Your task to perform on an android device: Open accessibility settings Image 0: 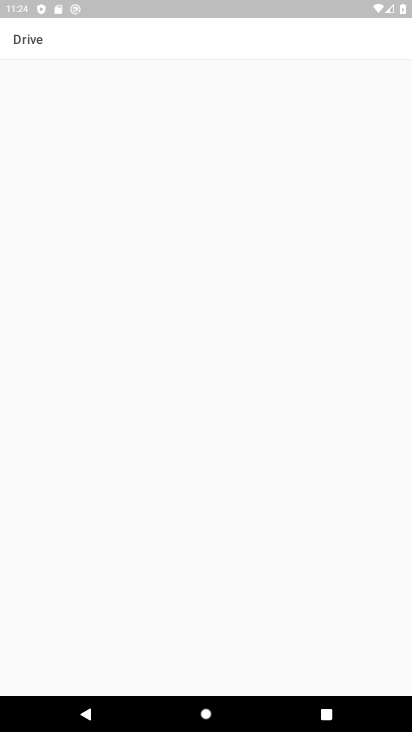
Step 0: press home button
Your task to perform on an android device: Open accessibility settings Image 1: 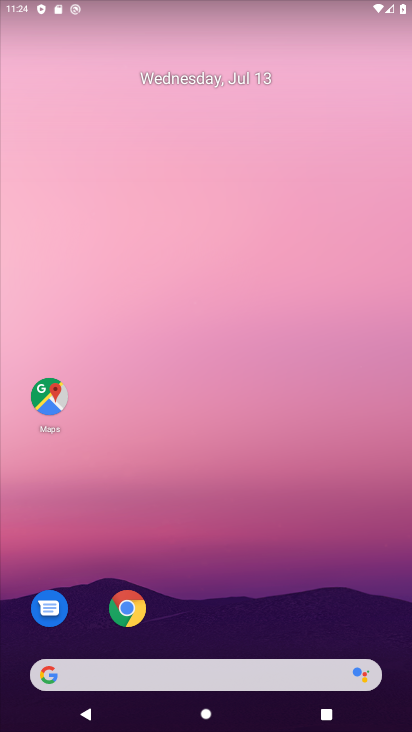
Step 1: drag from (35, 516) to (225, 108)
Your task to perform on an android device: Open accessibility settings Image 2: 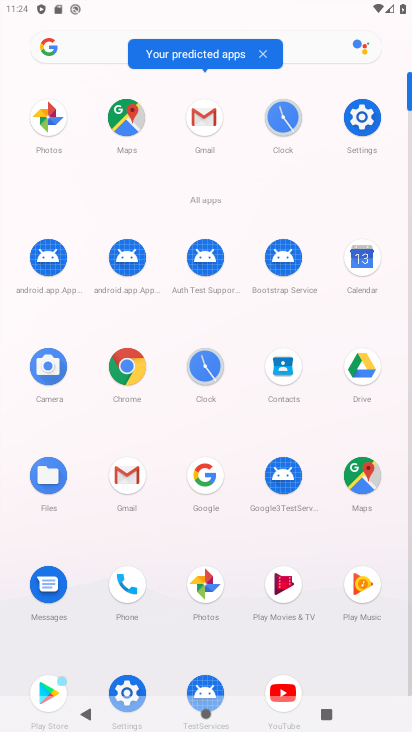
Step 2: click (357, 122)
Your task to perform on an android device: Open accessibility settings Image 3: 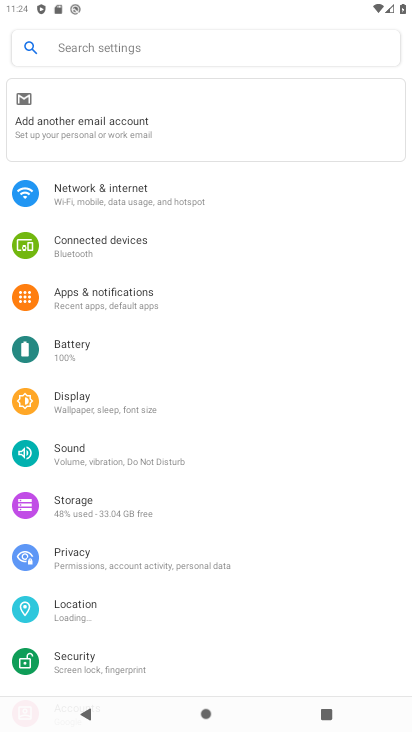
Step 3: drag from (130, 575) to (155, 266)
Your task to perform on an android device: Open accessibility settings Image 4: 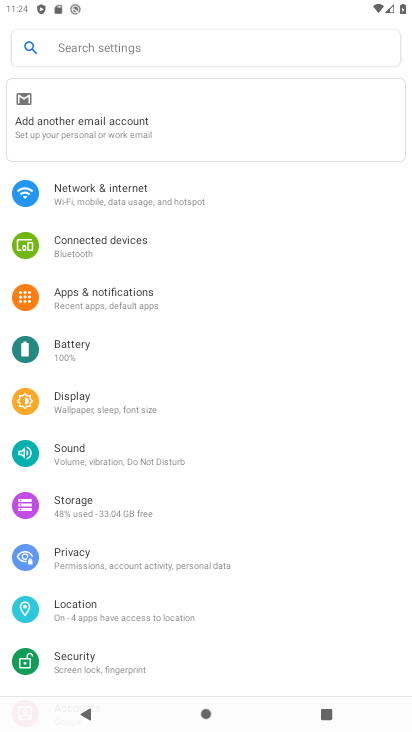
Step 4: drag from (11, 640) to (133, 173)
Your task to perform on an android device: Open accessibility settings Image 5: 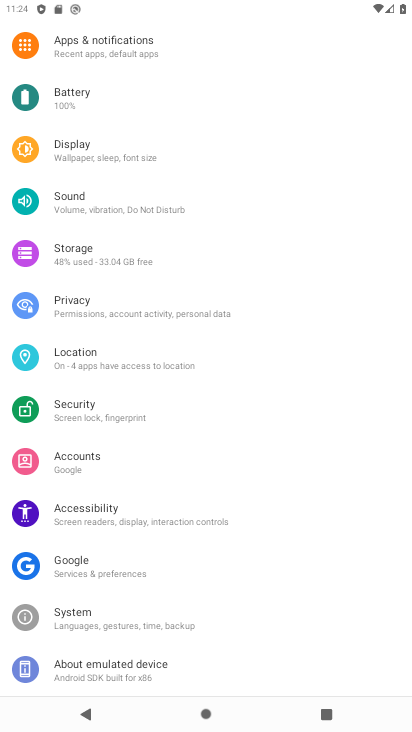
Step 5: click (149, 506)
Your task to perform on an android device: Open accessibility settings Image 6: 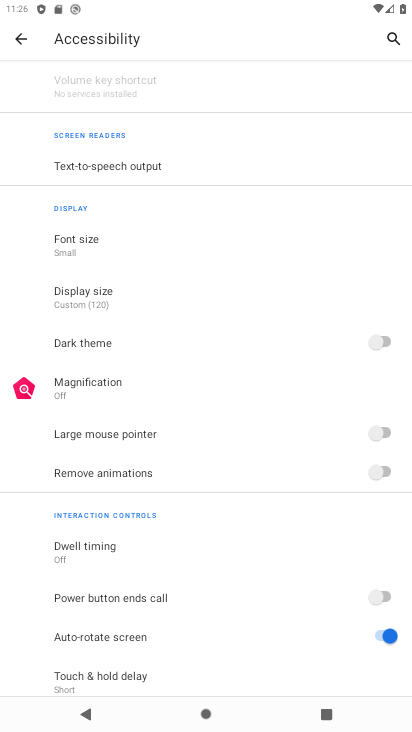
Step 6: task complete